Your task to perform on an android device: Is it going to rain tomorrow? Image 0: 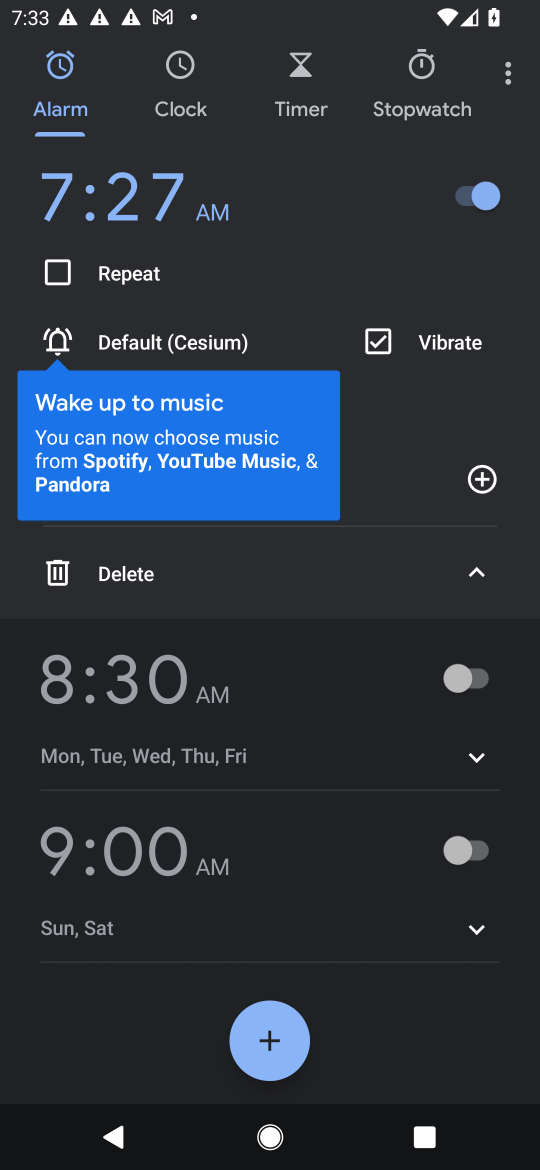
Step 0: press home button
Your task to perform on an android device: Is it going to rain tomorrow? Image 1: 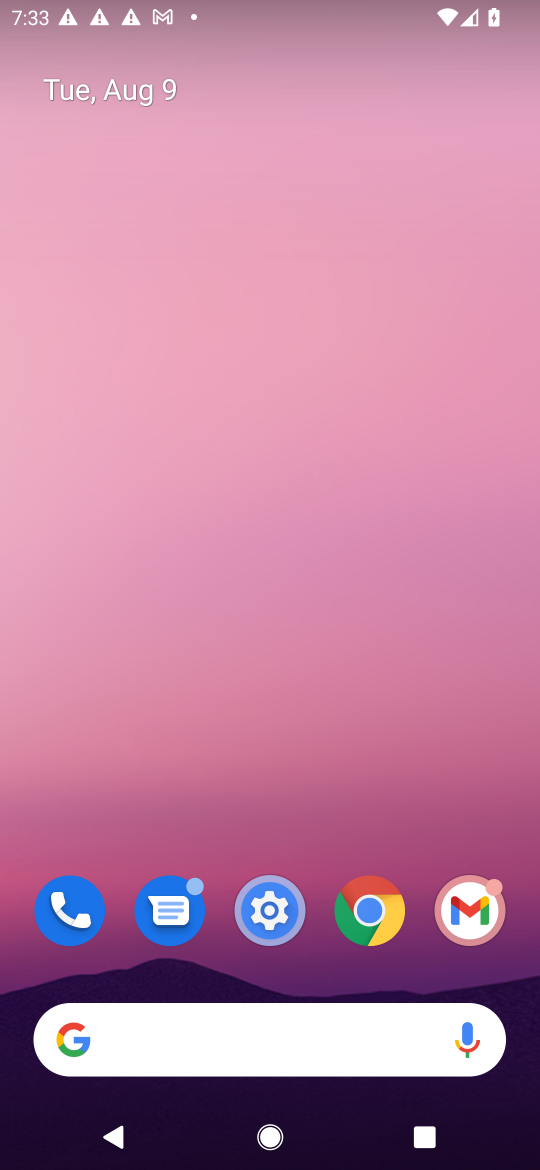
Step 1: drag from (324, 751) to (388, 285)
Your task to perform on an android device: Is it going to rain tomorrow? Image 2: 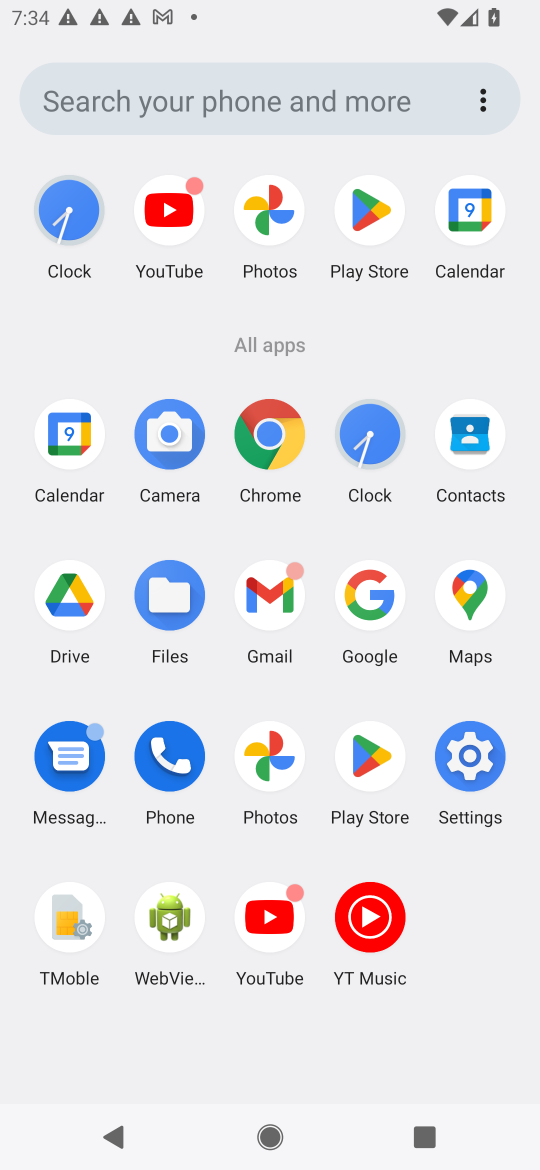
Step 2: click (375, 628)
Your task to perform on an android device: Is it going to rain tomorrow? Image 3: 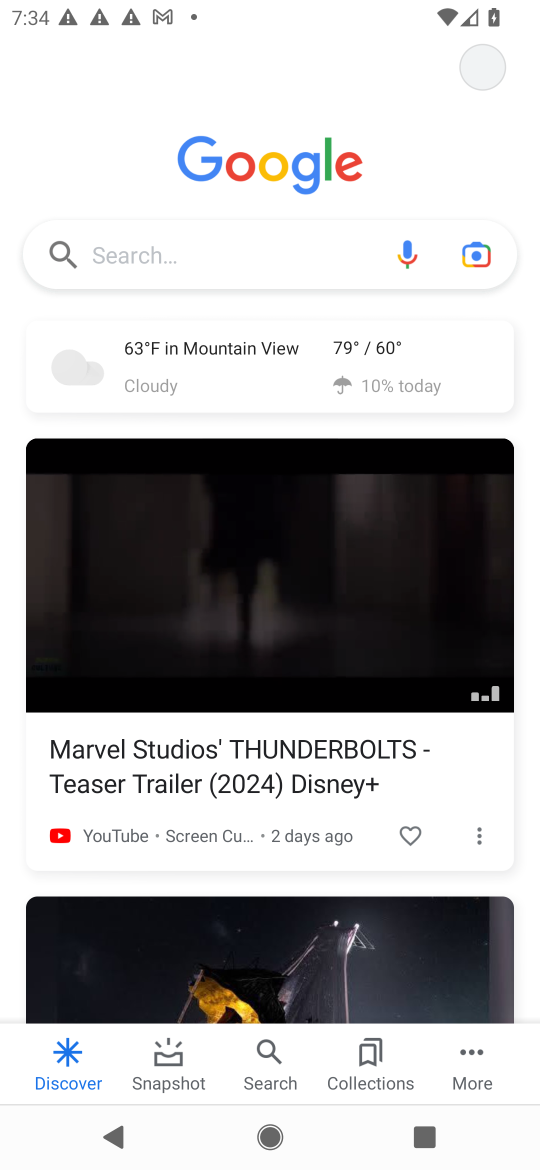
Step 3: click (324, 268)
Your task to perform on an android device: Is it going to rain tomorrow? Image 4: 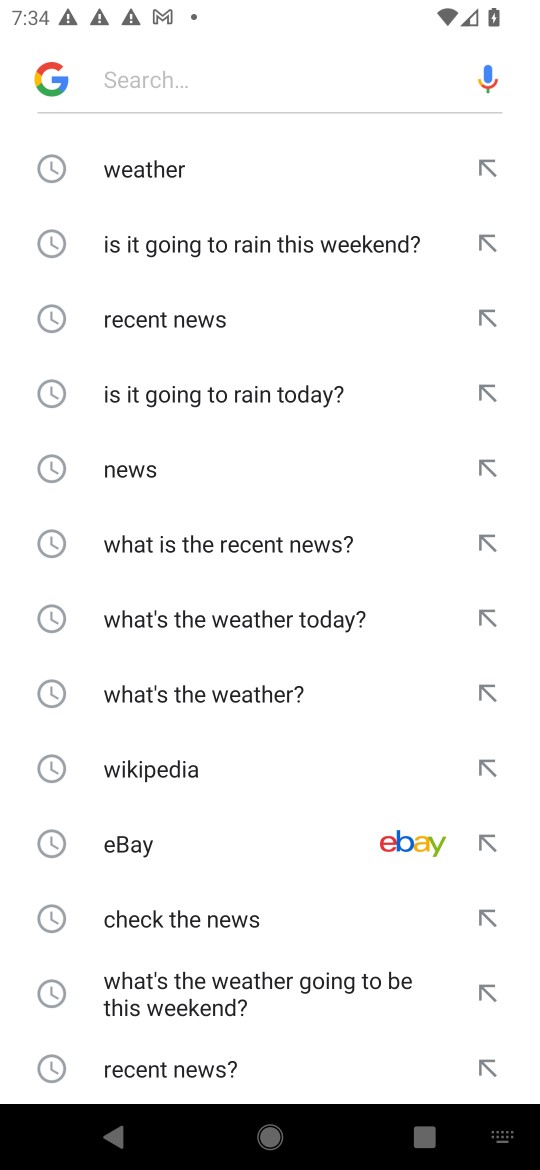
Step 4: click (267, 160)
Your task to perform on an android device: Is it going to rain tomorrow? Image 5: 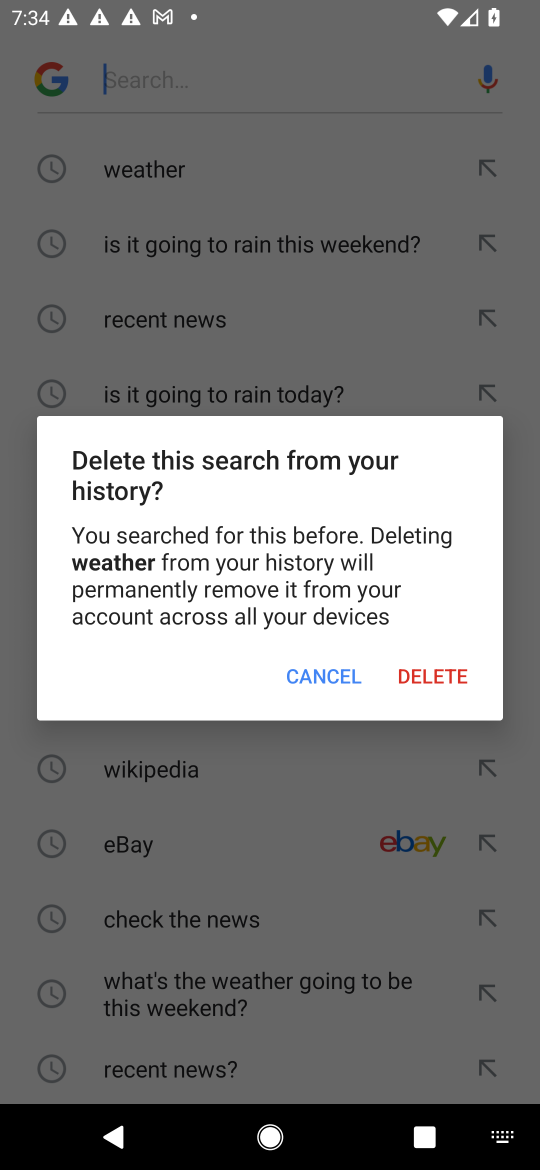
Step 5: click (316, 679)
Your task to perform on an android device: Is it going to rain tomorrow? Image 6: 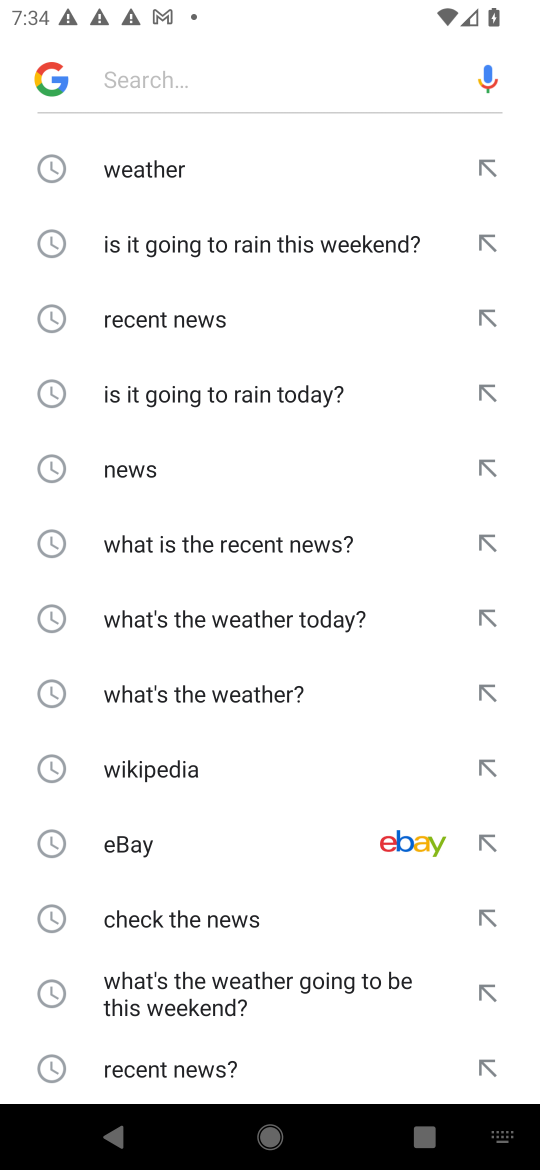
Step 6: click (168, 164)
Your task to perform on an android device: Is it going to rain tomorrow? Image 7: 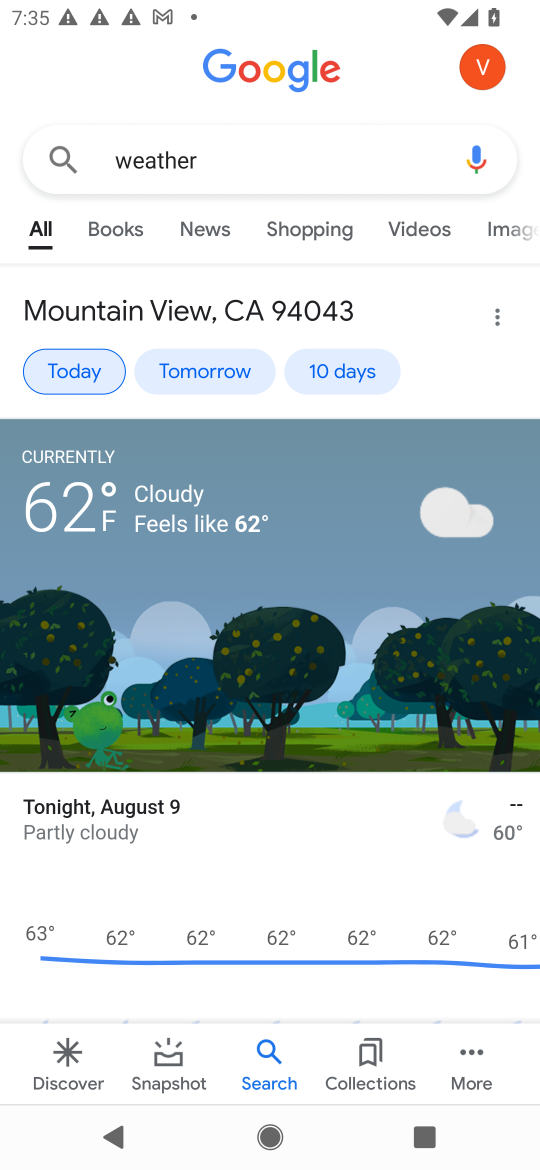
Step 7: click (219, 374)
Your task to perform on an android device: Is it going to rain tomorrow? Image 8: 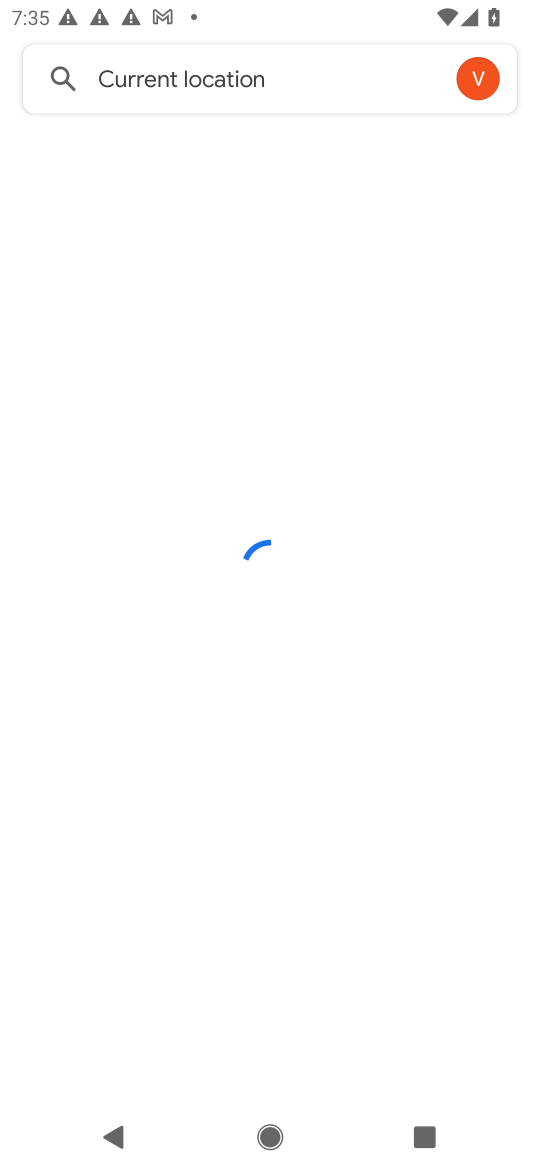
Step 8: task complete